Your task to perform on an android device: find which apps use the phone's location Image 0: 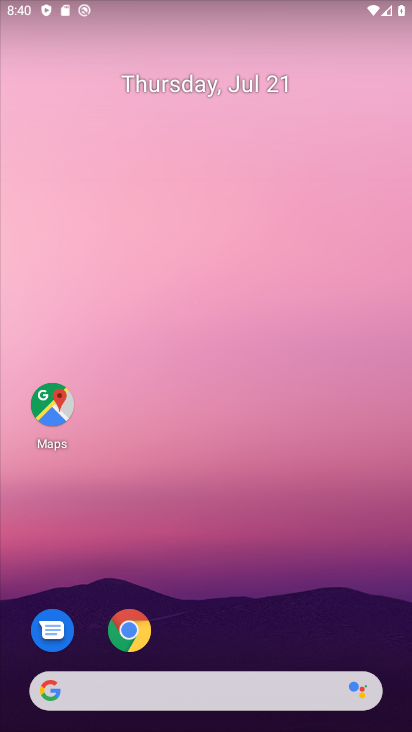
Step 0: drag from (159, 677) to (169, 314)
Your task to perform on an android device: find which apps use the phone's location Image 1: 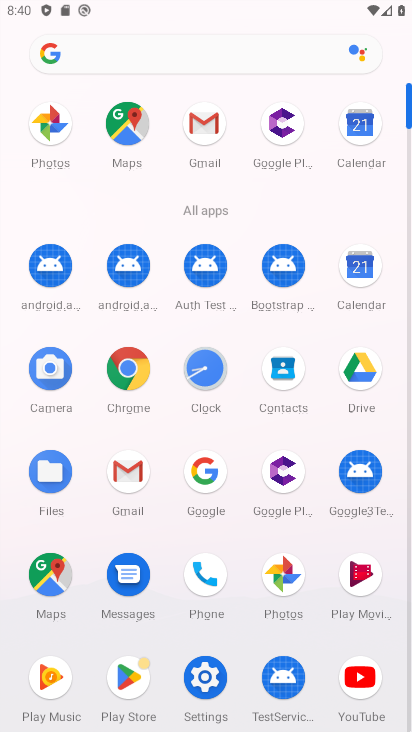
Step 1: click (199, 681)
Your task to perform on an android device: find which apps use the phone's location Image 2: 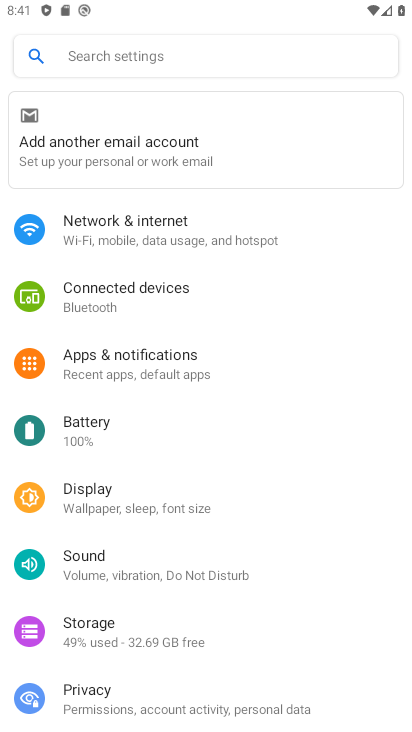
Step 2: drag from (75, 647) to (78, 361)
Your task to perform on an android device: find which apps use the phone's location Image 3: 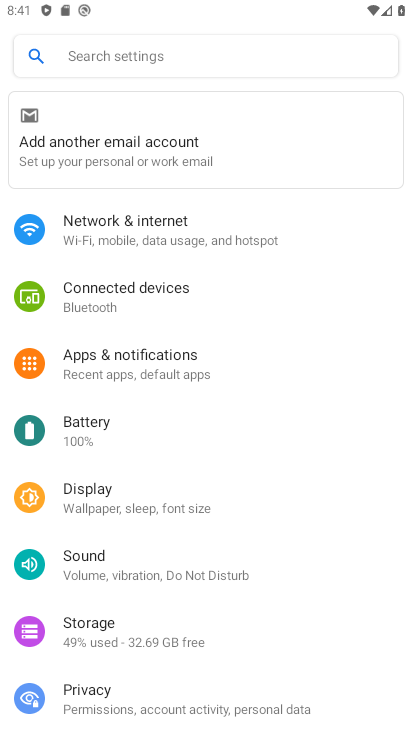
Step 3: drag from (135, 535) to (155, 398)
Your task to perform on an android device: find which apps use the phone's location Image 4: 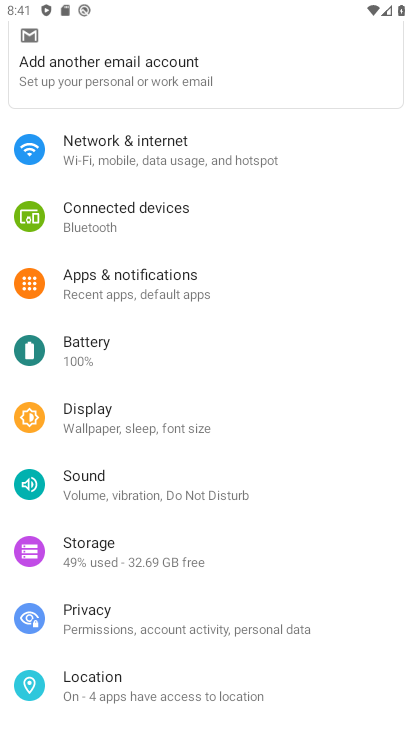
Step 4: click (120, 694)
Your task to perform on an android device: find which apps use the phone's location Image 5: 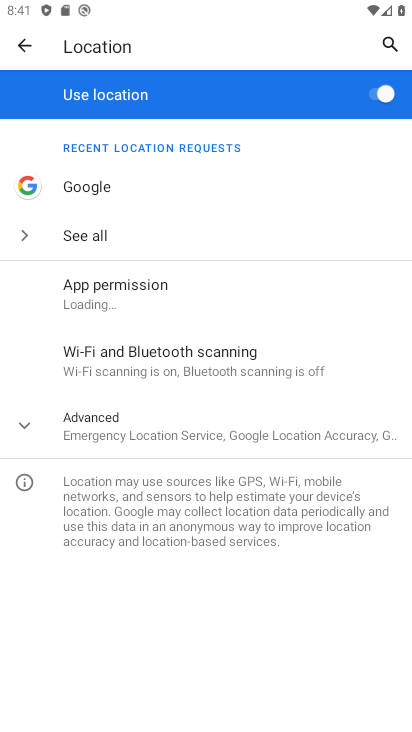
Step 5: click (88, 276)
Your task to perform on an android device: find which apps use the phone's location Image 6: 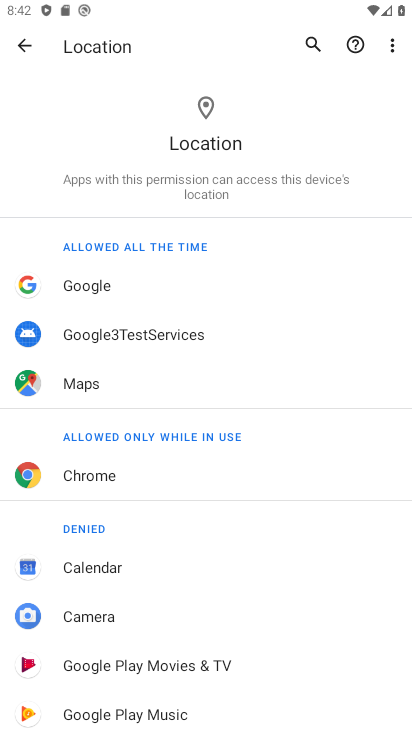
Step 6: task complete